Your task to perform on an android device: Turn on the flashlight Image 0: 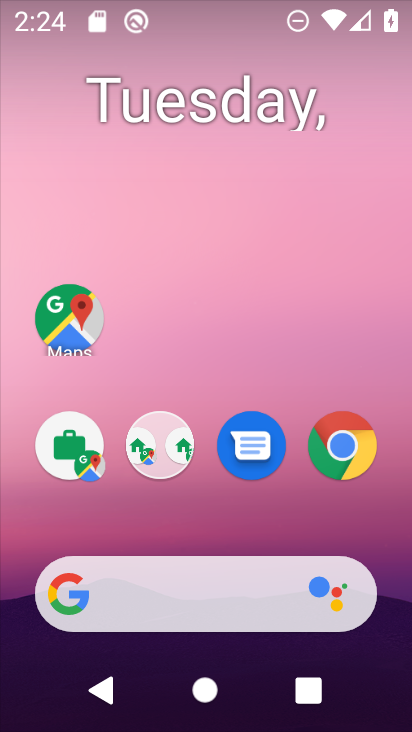
Step 0: drag from (288, 523) to (303, 165)
Your task to perform on an android device: Turn on the flashlight Image 1: 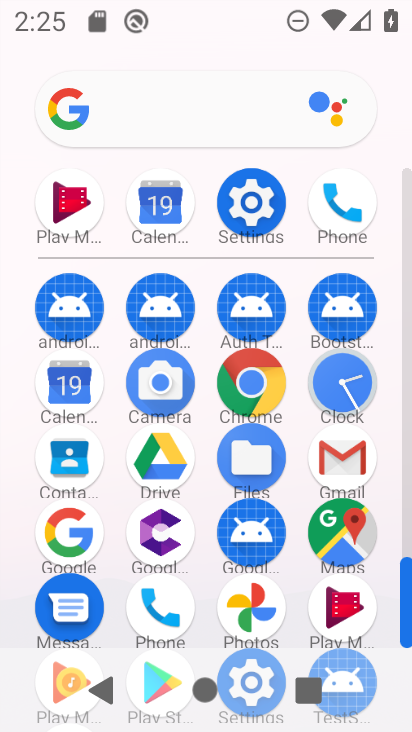
Step 1: click (256, 222)
Your task to perform on an android device: Turn on the flashlight Image 2: 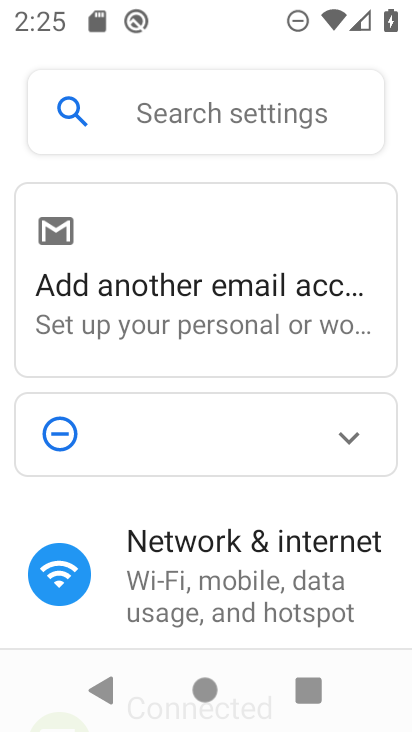
Step 2: task complete